Your task to perform on an android device: Go to privacy settings Image 0: 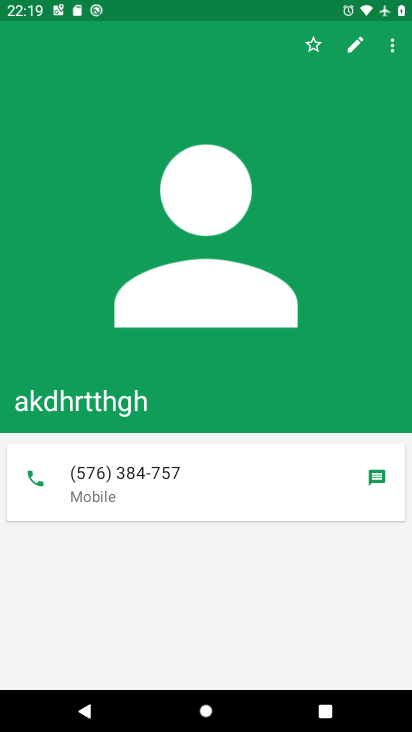
Step 0: press home button
Your task to perform on an android device: Go to privacy settings Image 1: 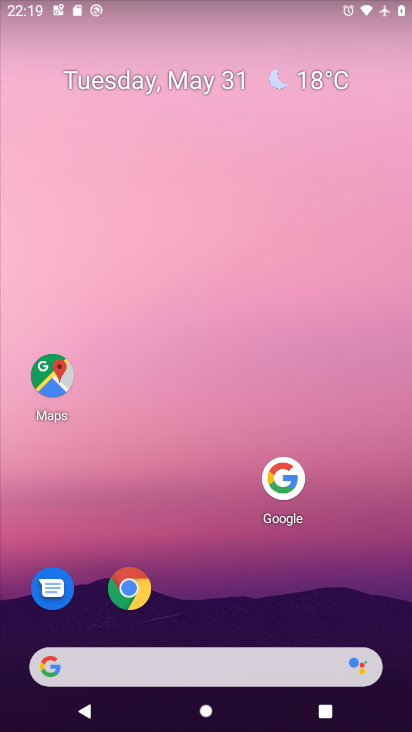
Step 1: drag from (162, 661) to (264, 166)
Your task to perform on an android device: Go to privacy settings Image 2: 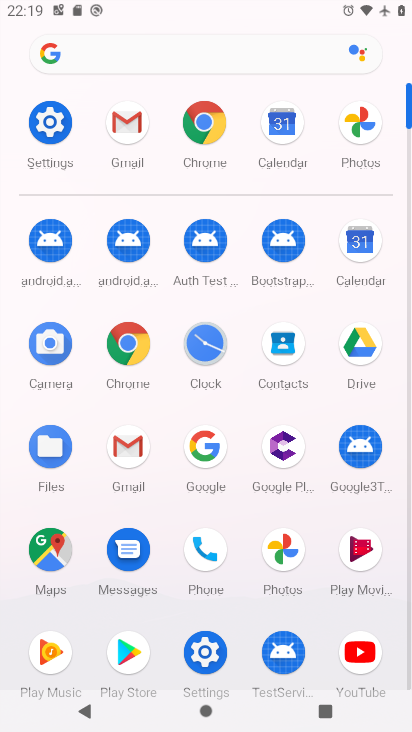
Step 2: click (47, 124)
Your task to perform on an android device: Go to privacy settings Image 3: 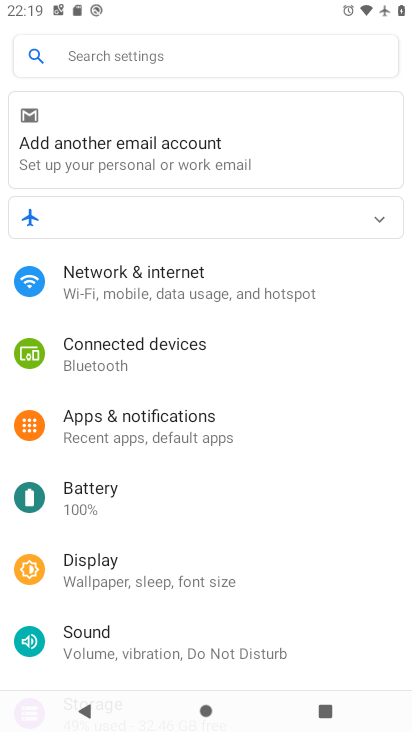
Step 3: drag from (208, 630) to (285, 245)
Your task to perform on an android device: Go to privacy settings Image 4: 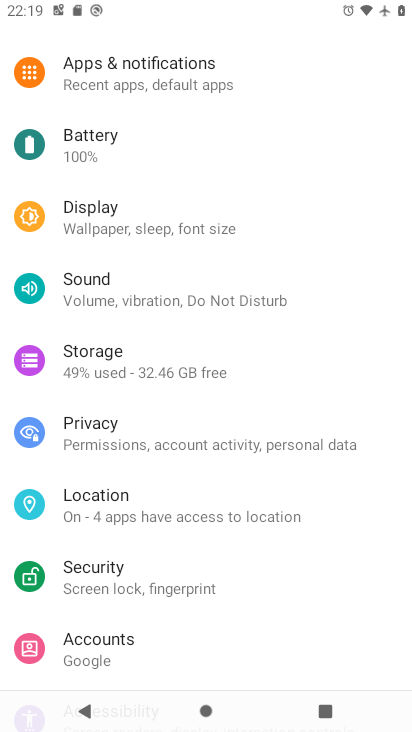
Step 4: click (115, 437)
Your task to perform on an android device: Go to privacy settings Image 5: 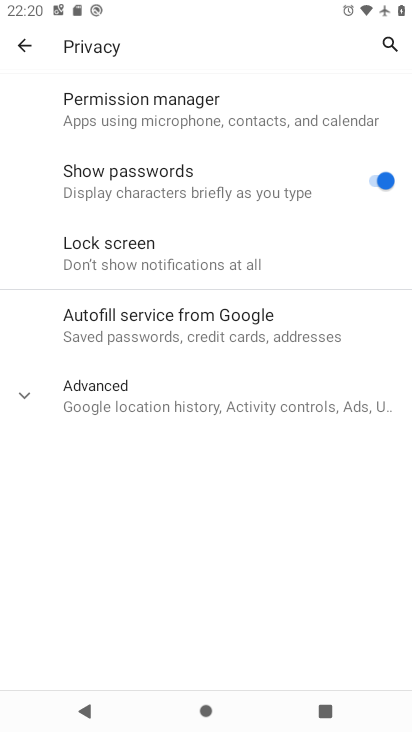
Step 5: task complete